Your task to perform on an android device: all mails in gmail Image 0: 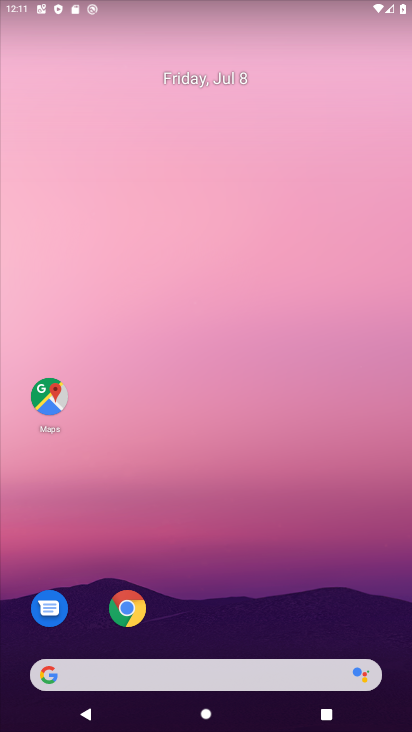
Step 0: drag from (285, 561) to (187, 0)
Your task to perform on an android device: all mails in gmail Image 1: 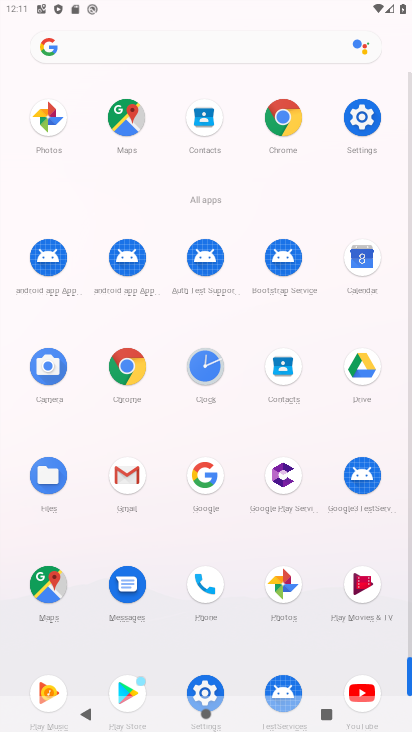
Step 1: click (122, 485)
Your task to perform on an android device: all mails in gmail Image 2: 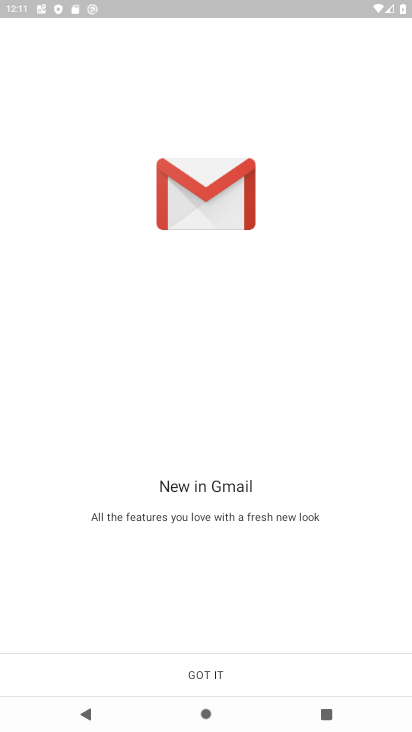
Step 2: click (228, 684)
Your task to perform on an android device: all mails in gmail Image 3: 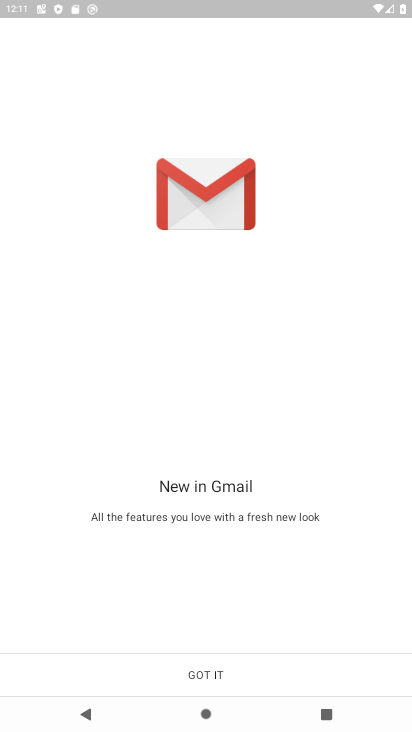
Step 3: click (228, 684)
Your task to perform on an android device: all mails in gmail Image 4: 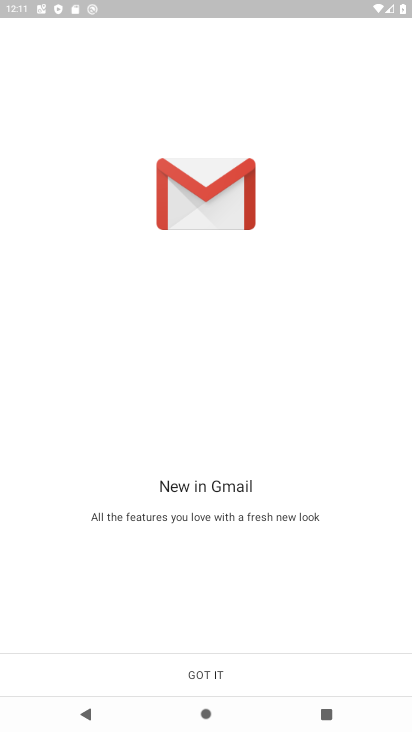
Step 4: click (228, 684)
Your task to perform on an android device: all mails in gmail Image 5: 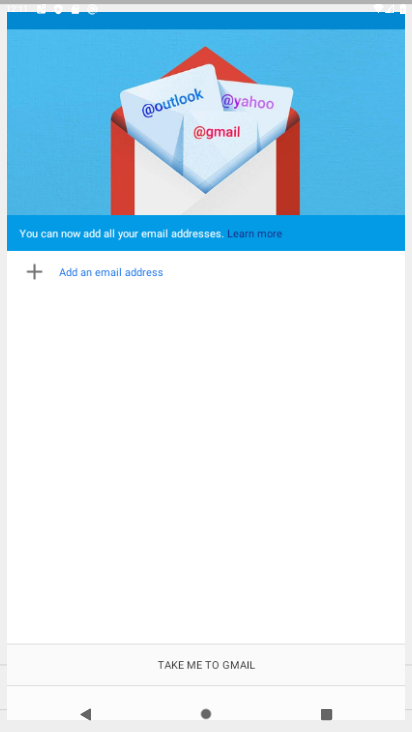
Step 5: click (228, 684)
Your task to perform on an android device: all mails in gmail Image 6: 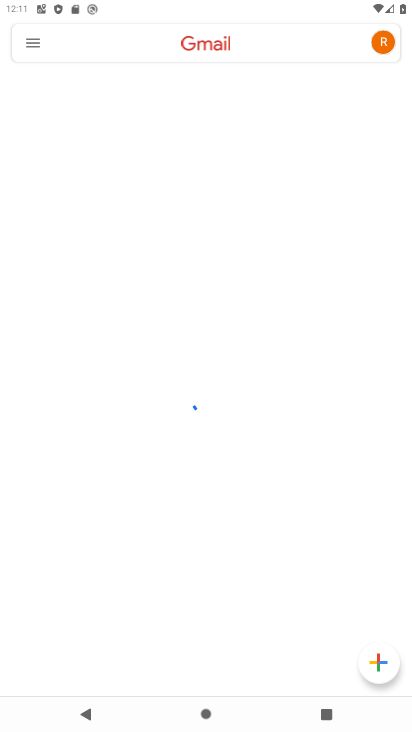
Step 6: click (42, 48)
Your task to perform on an android device: all mails in gmail Image 7: 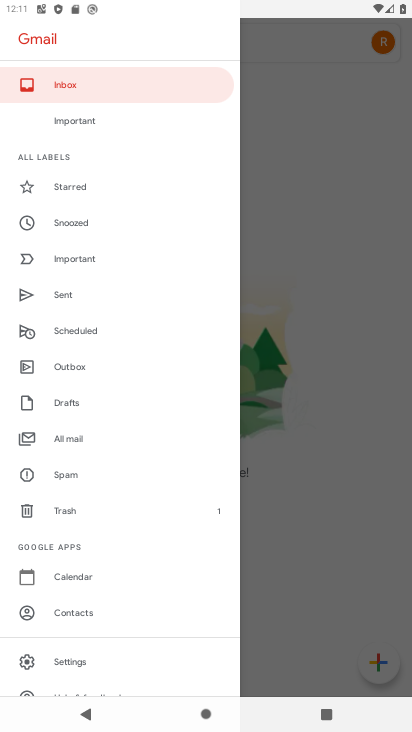
Step 7: click (67, 439)
Your task to perform on an android device: all mails in gmail Image 8: 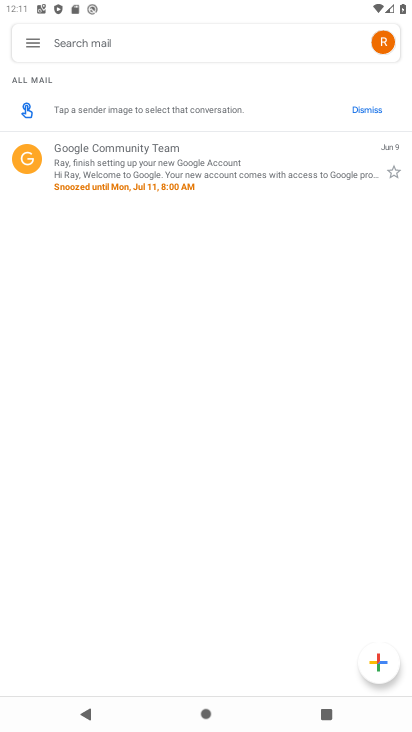
Step 8: task complete